Your task to perform on an android device: Search for "macbook pro 13 inch" on costco.com, select the first entry, and add it to the cart. Image 0: 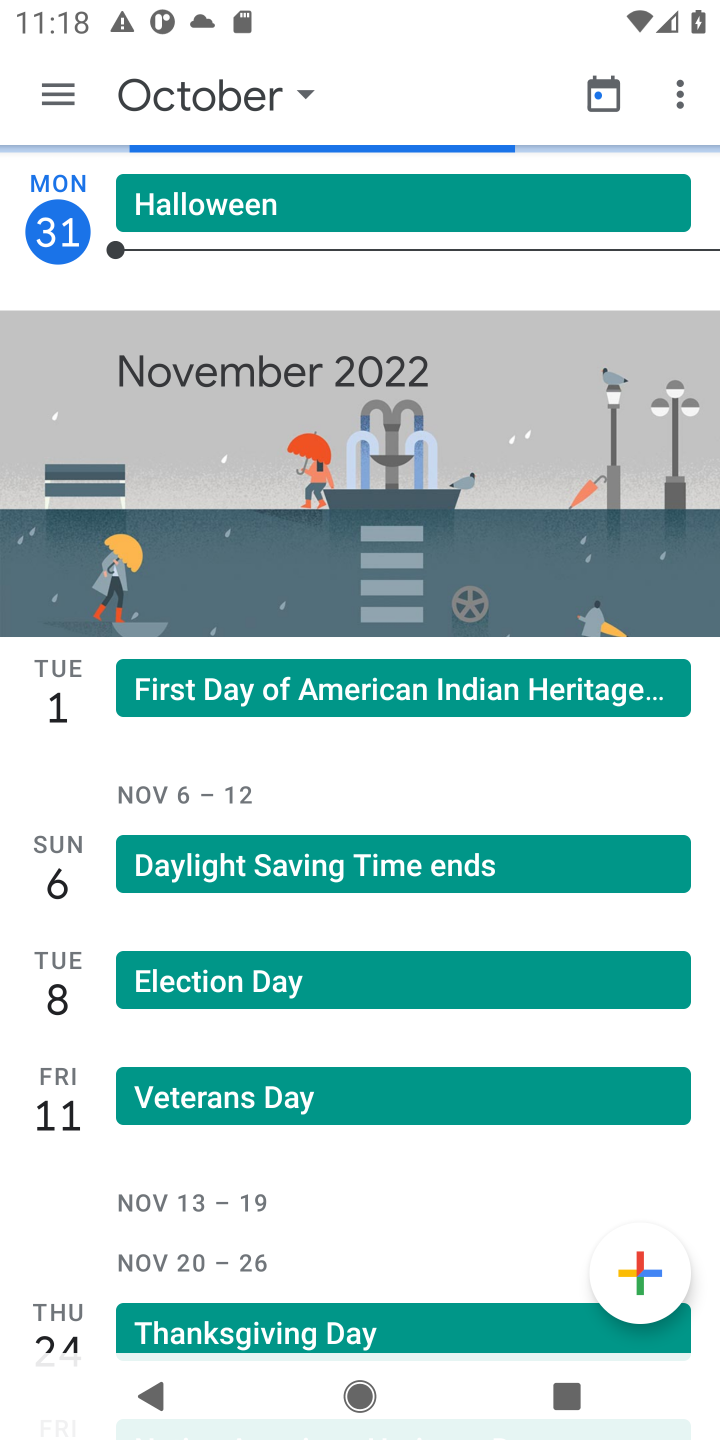
Step 0: press home button
Your task to perform on an android device: Search for "macbook pro 13 inch" on costco.com, select the first entry, and add it to the cart. Image 1: 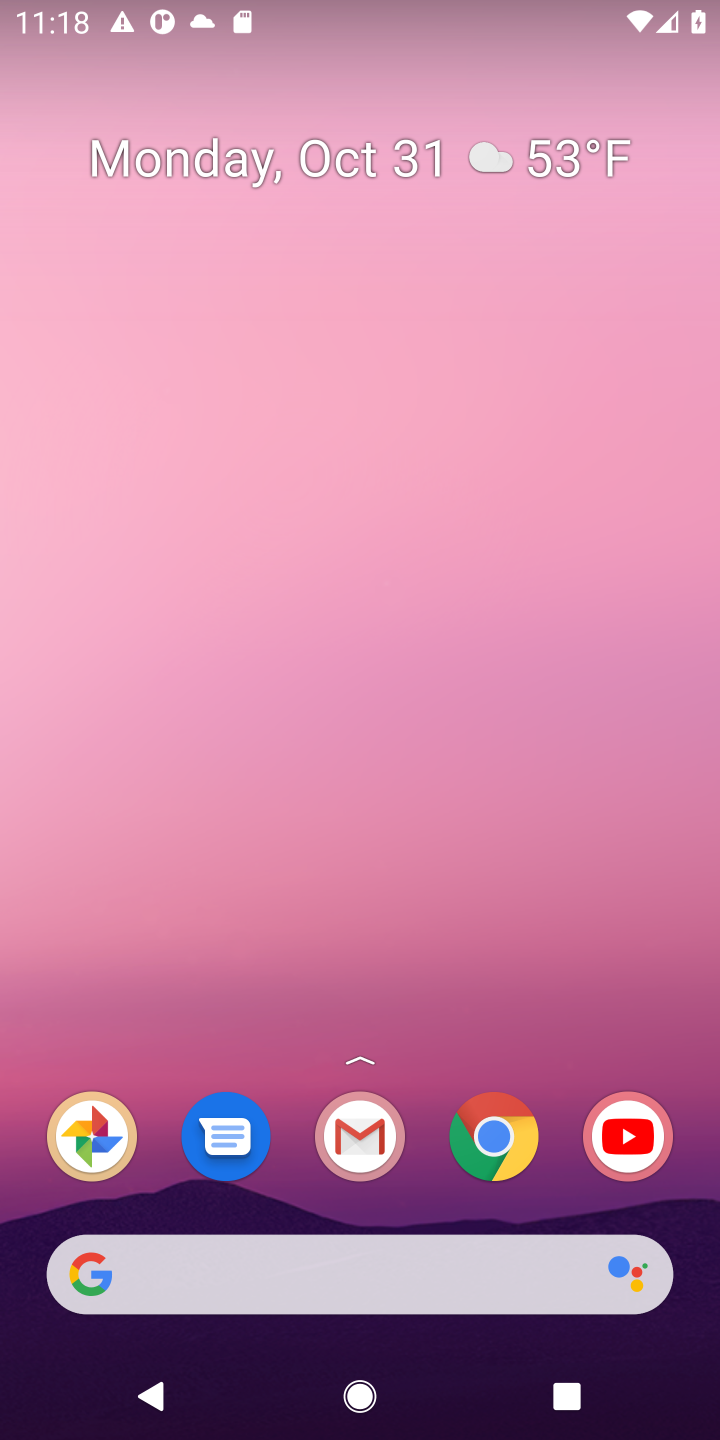
Step 1: click (140, 1271)
Your task to perform on an android device: Search for "macbook pro 13 inch" on costco.com, select the first entry, and add it to the cart. Image 2: 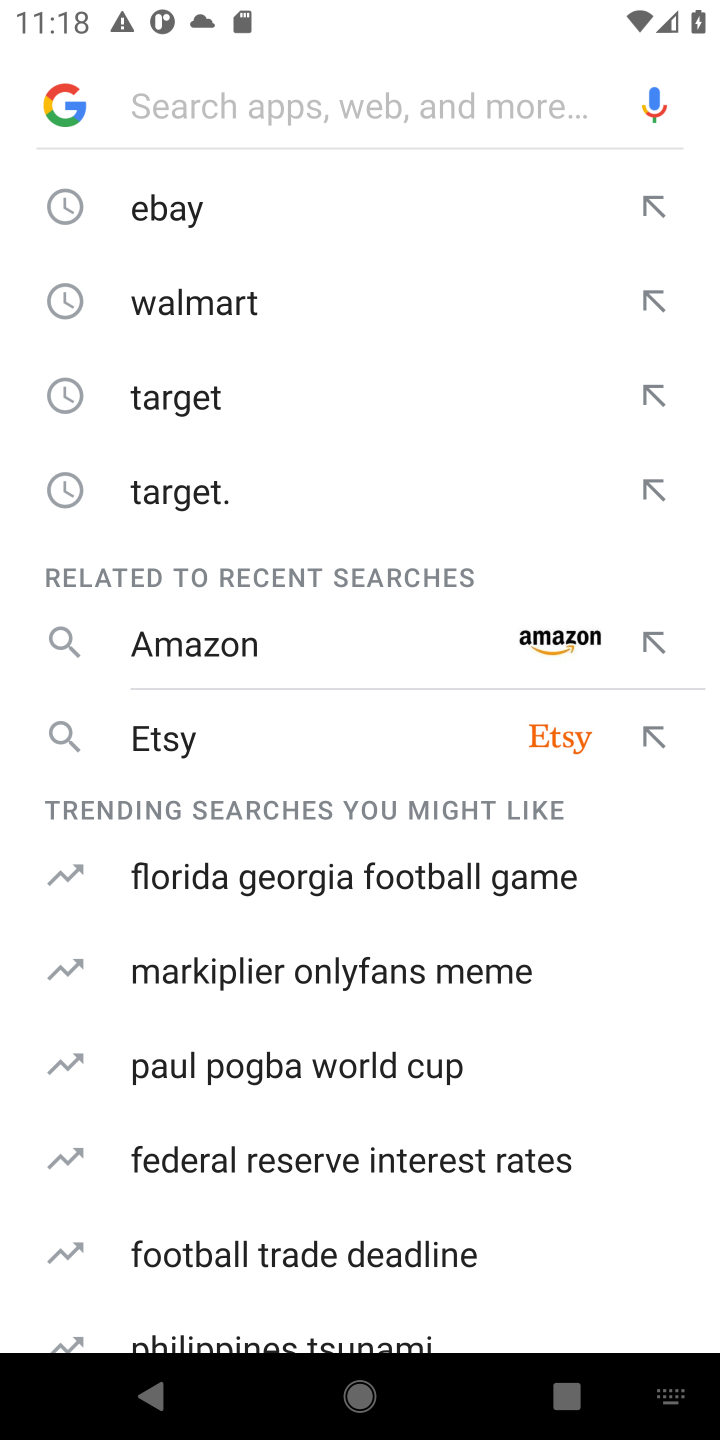
Step 2: click (694, 1427)
Your task to perform on an android device: Search for "macbook pro 13 inch" on costco.com, select the first entry, and add it to the cart. Image 3: 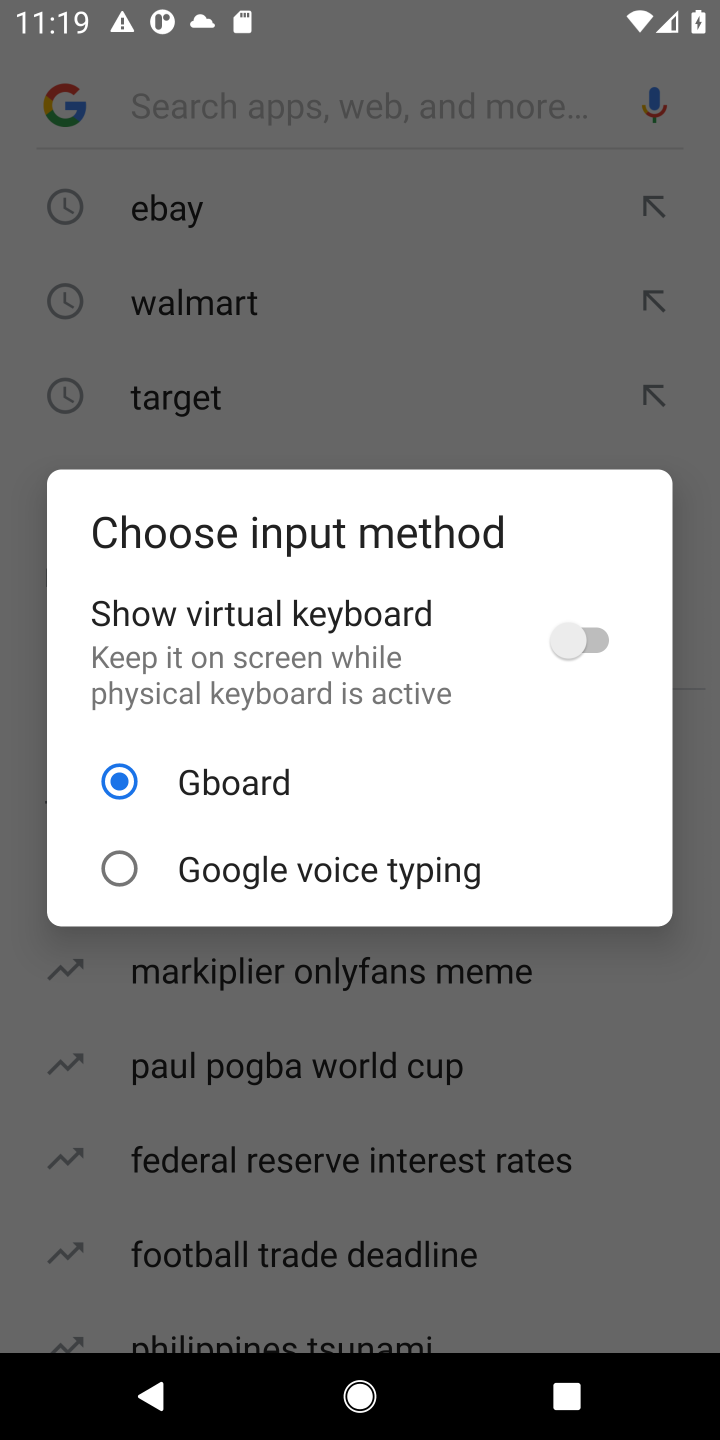
Step 3: press back button
Your task to perform on an android device: Search for "macbook pro 13 inch" on costco.com, select the first entry, and add it to the cart. Image 4: 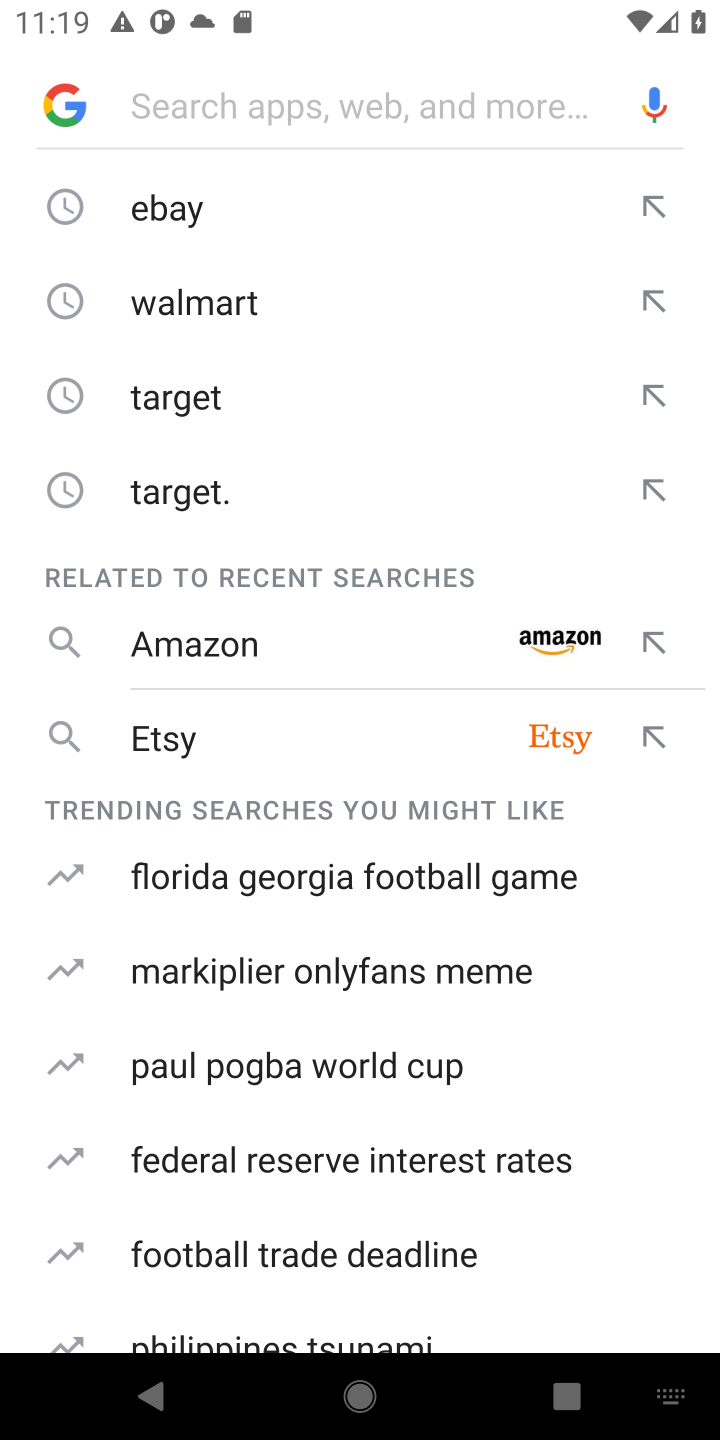
Step 4: click (307, 110)
Your task to perform on an android device: Search for "macbook pro 13 inch" on costco.com, select the first entry, and add it to the cart. Image 5: 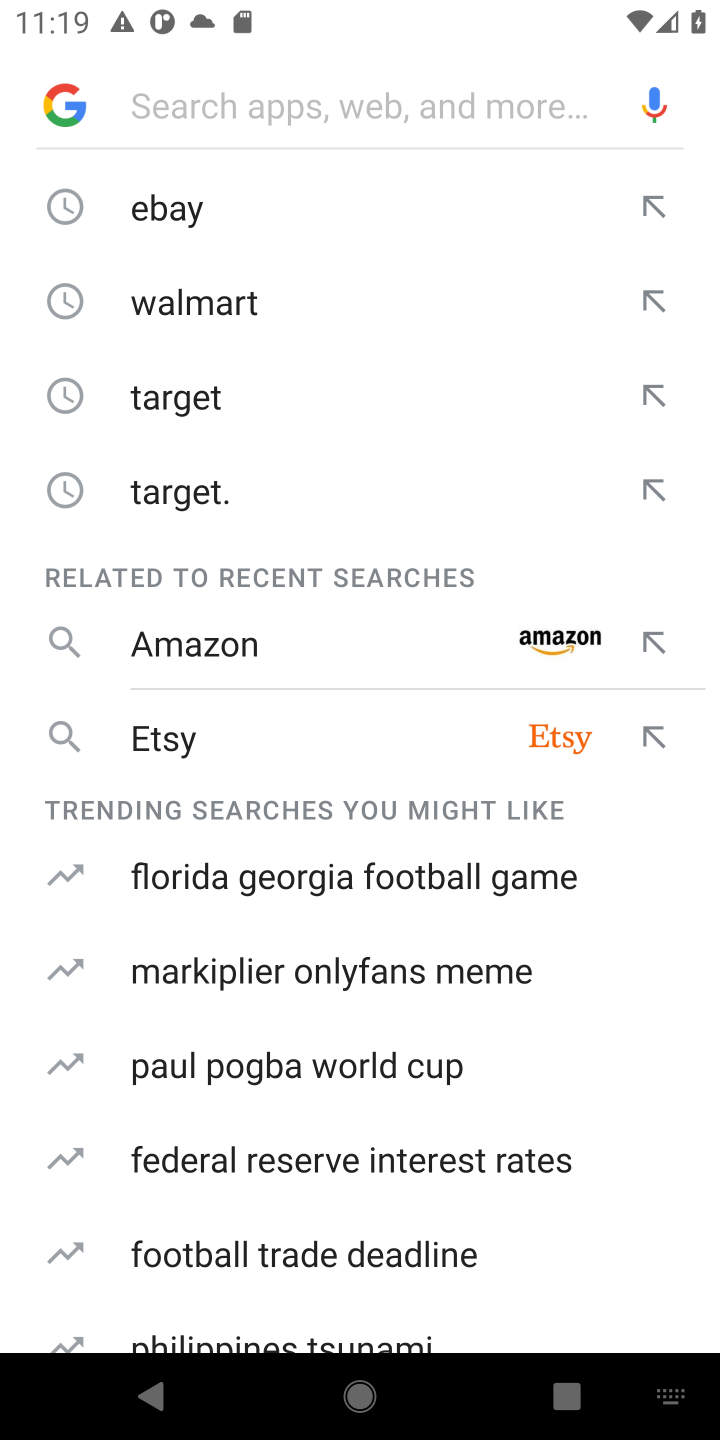
Step 5: type "costco.com"
Your task to perform on an android device: Search for "macbook pro 13 inch" on costco.com, select the first entry, and add it to the cart. Image 6: 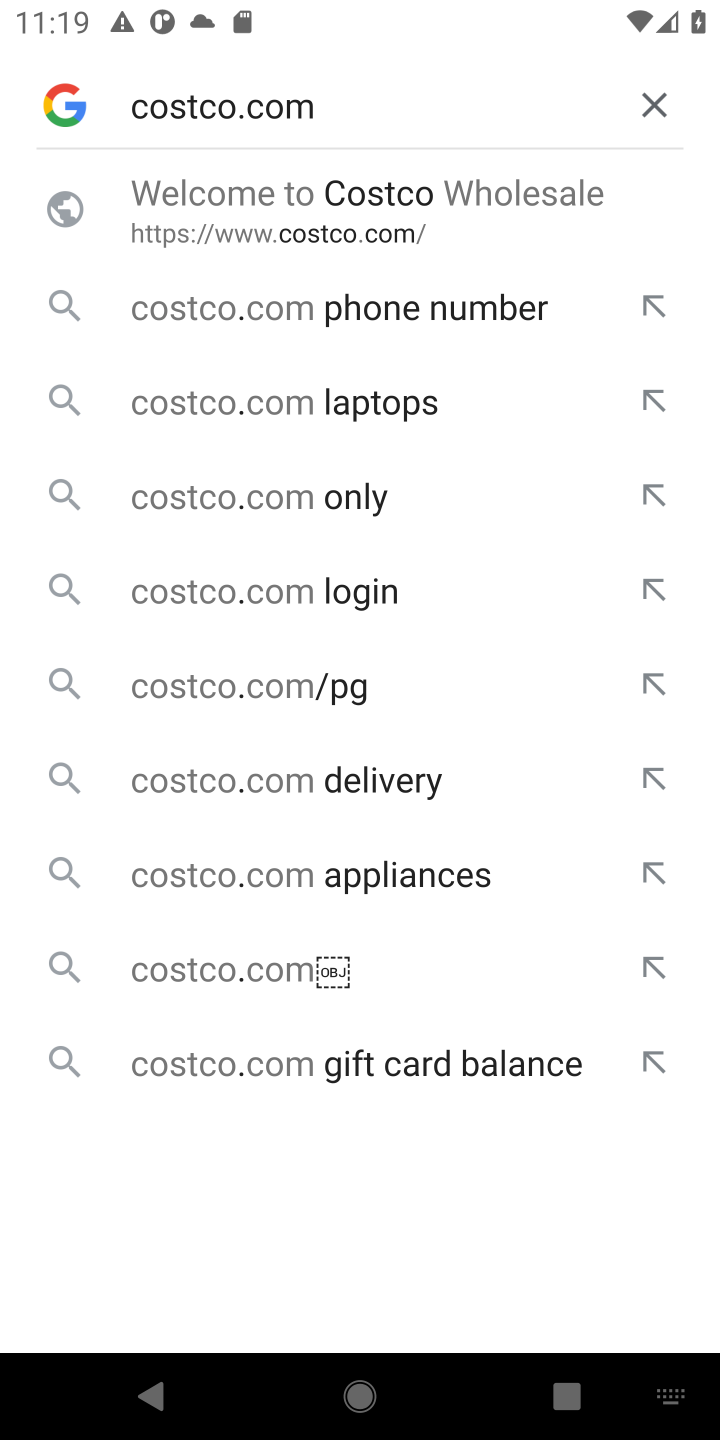
Step 6: press enter
Your task to perform on an android device: Search for "macbook pro 13 inch" on costco.com, select the first entry, and add it to the cart. Image 7: 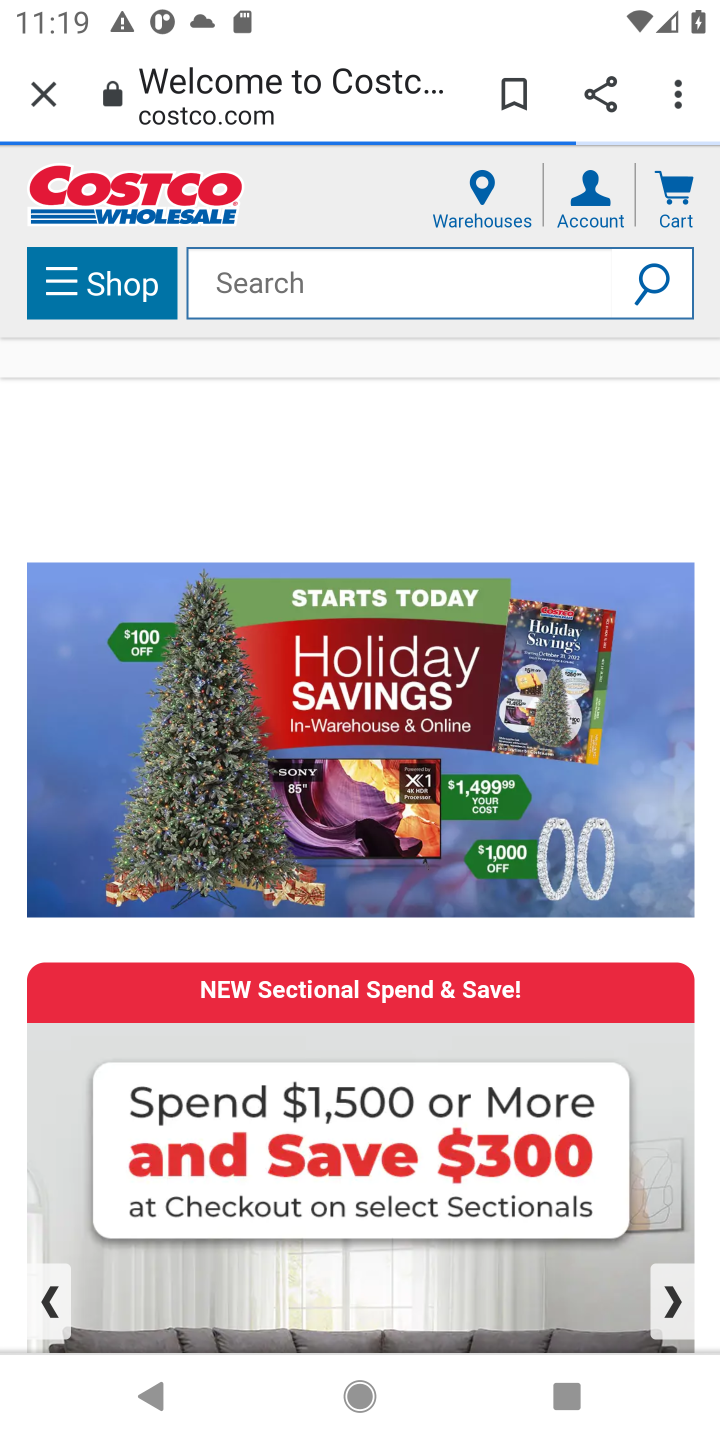
Step 7: click (261, 277)
Your task to perform on an android device: Search for "macbook pro 13 inch" on costco.com, select the first entry, and add it to the cart. Image 8: 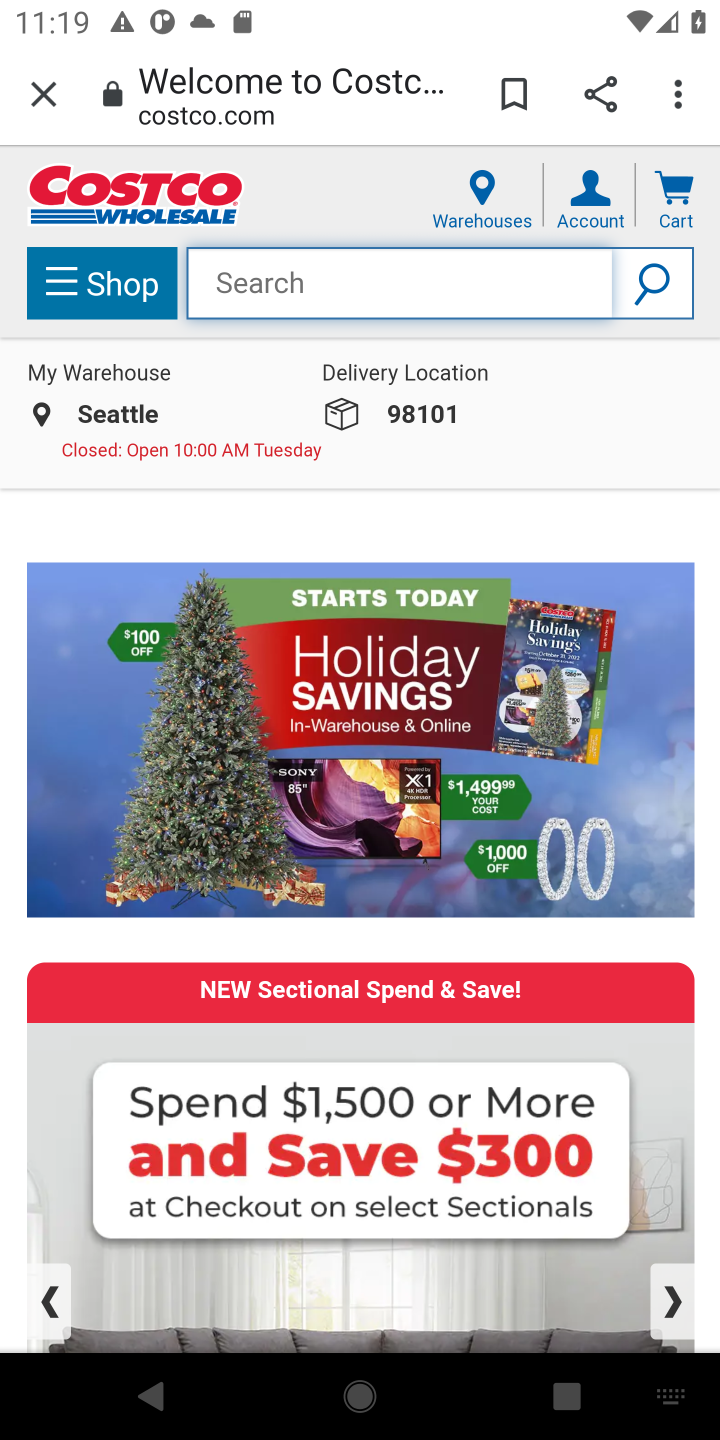
Step 8: type "macbook pro 13 inch"
Your task to perform on an android device: Search for "macbook pro 13 inch" on costco.com, select the first entry, and add it to the cart. Image 9: 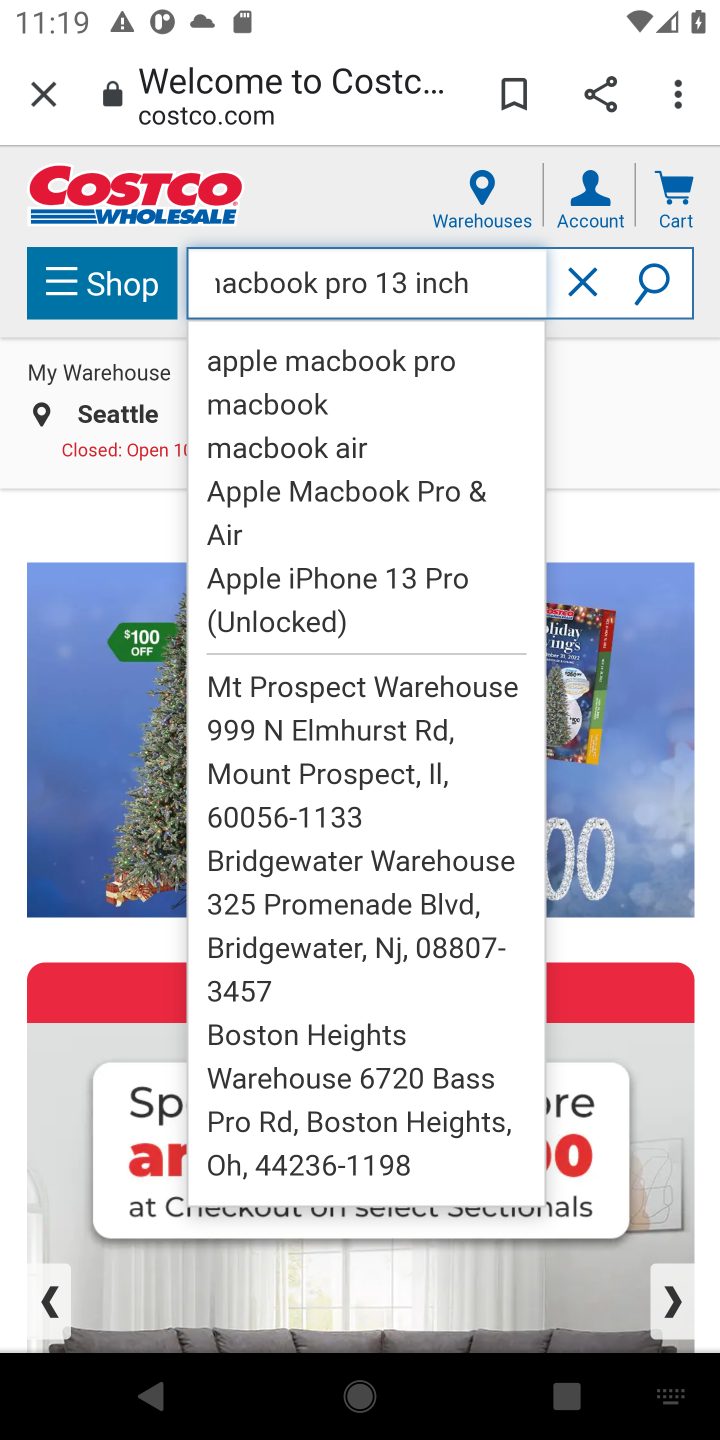
Step 9: click (662, 279)
Your task to perform on an android device: Search for "macbook pro 13 inch" on costco.com, select the first entry, and add it to the cart. Image 10: 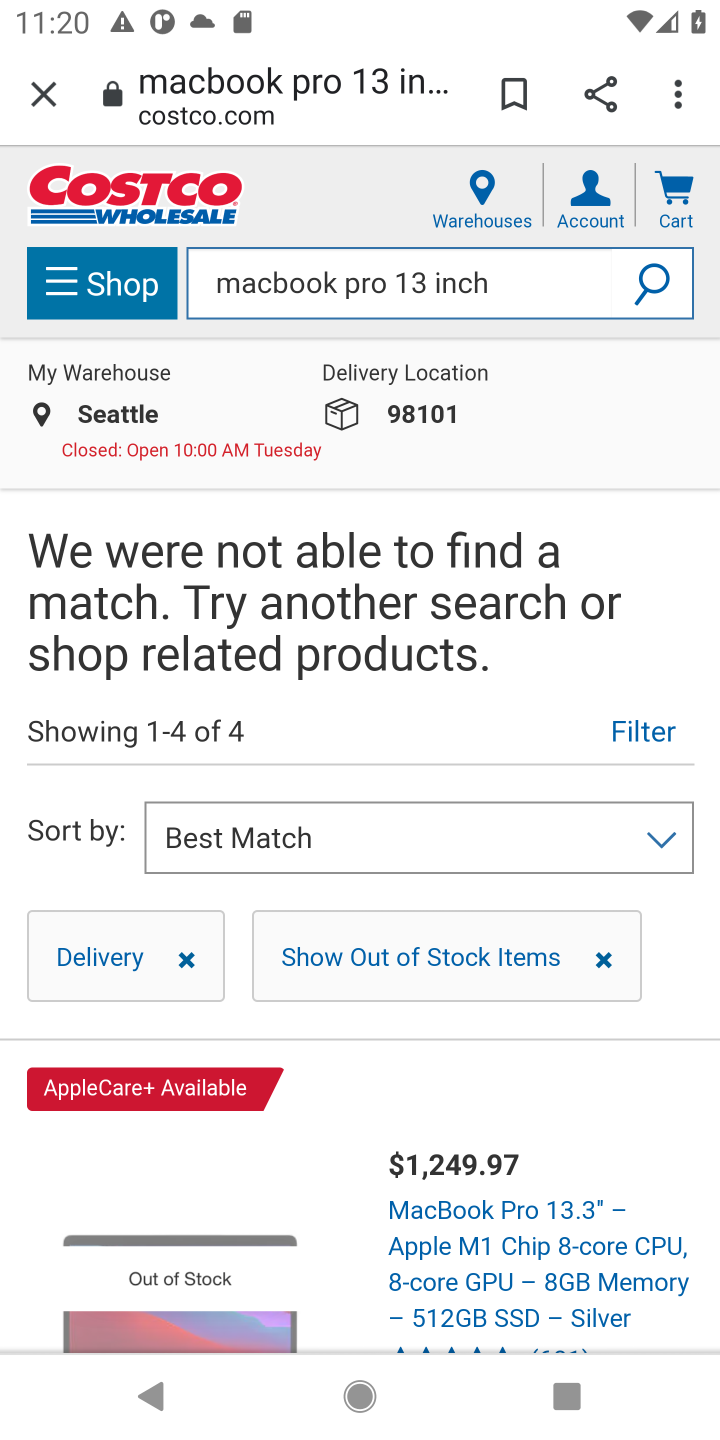
Step 10: drag from (477, 1194) to (544, 816)
Your task to perform on an android device: Search for "macbook pro 13 inch" on costco.com, select the first entry, and add it to the cart. Image 11: 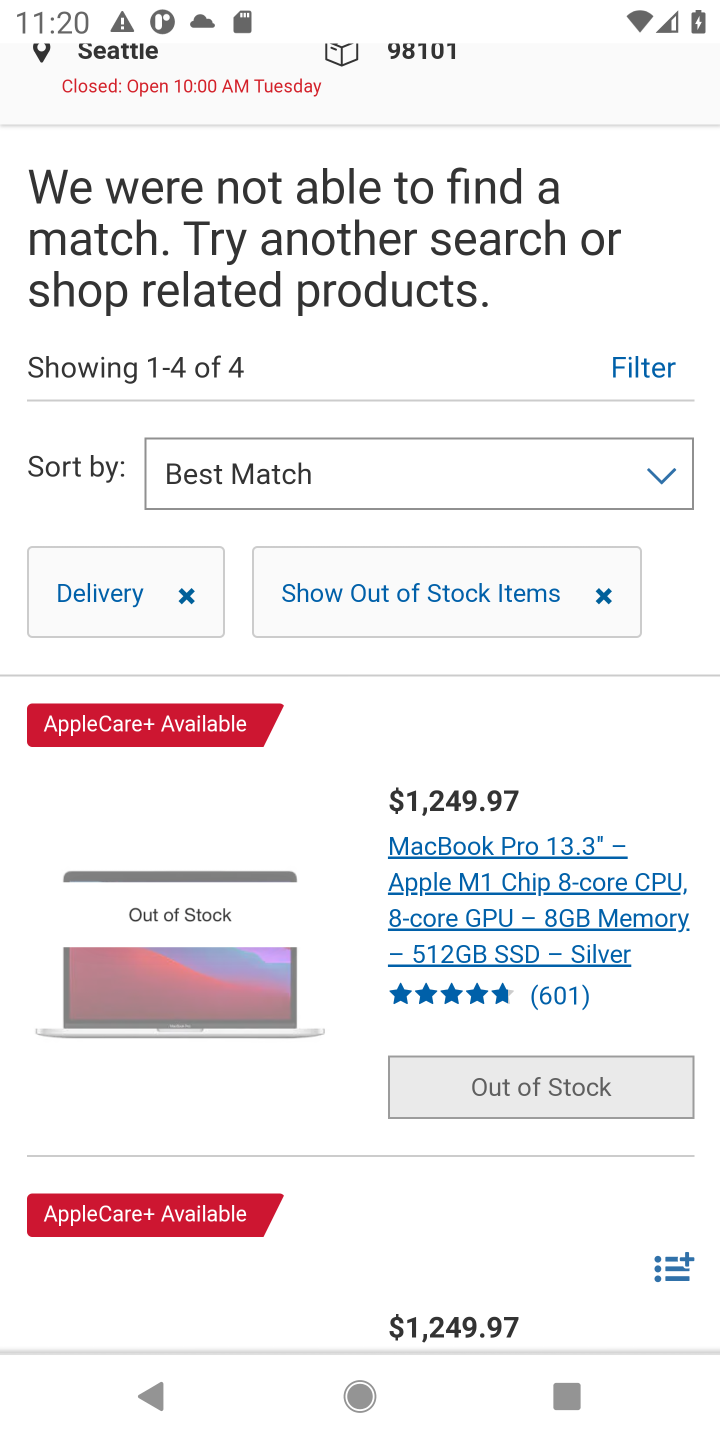
Step 11: drag from (369, 1192) to (419, 696)
Your task to perform on an android device: Search for "macbook pro 13 inch" on costco.com, select the first entry, and add it to the cart. Image 12: 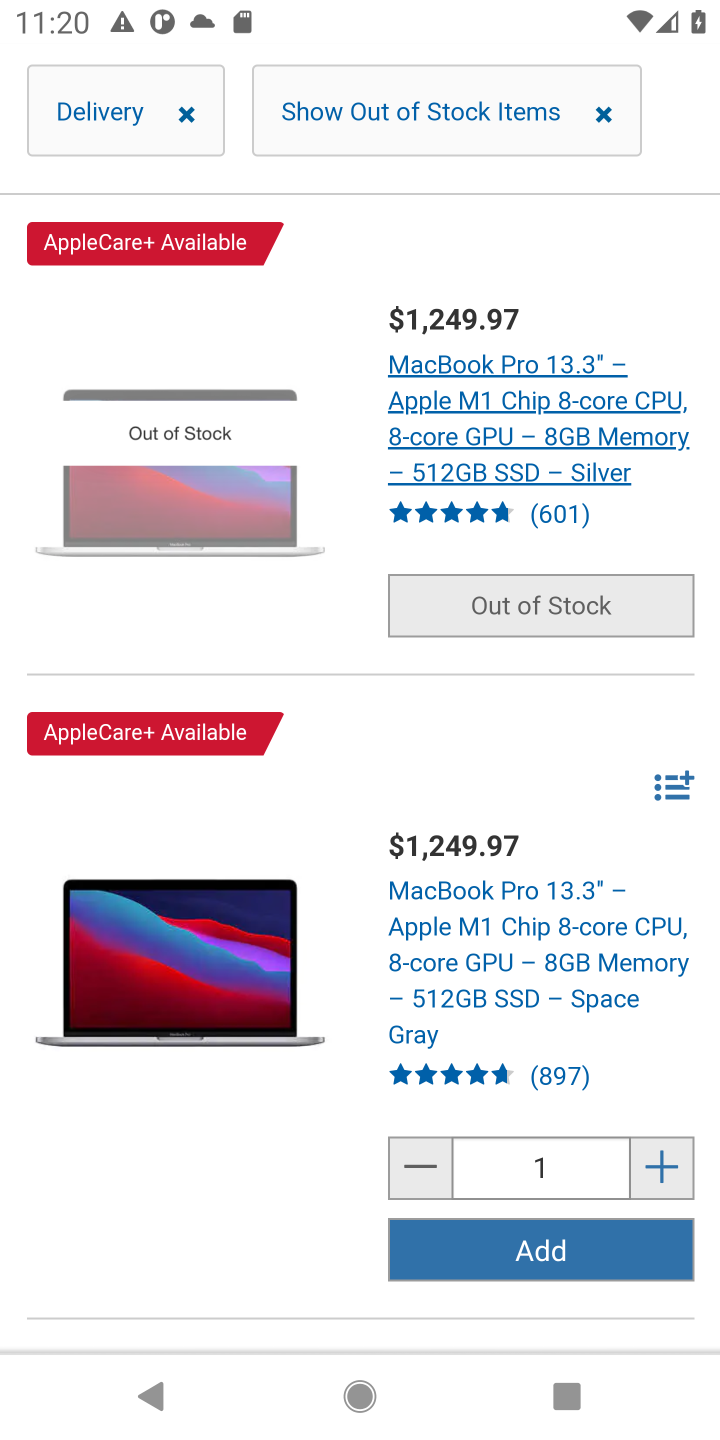
Step 12: click (575, 1259)
Your task to perform on an android device: Search for "macbook pro 13 inch" on costco.com, select the first entry, and add it to the cart. Image 13: 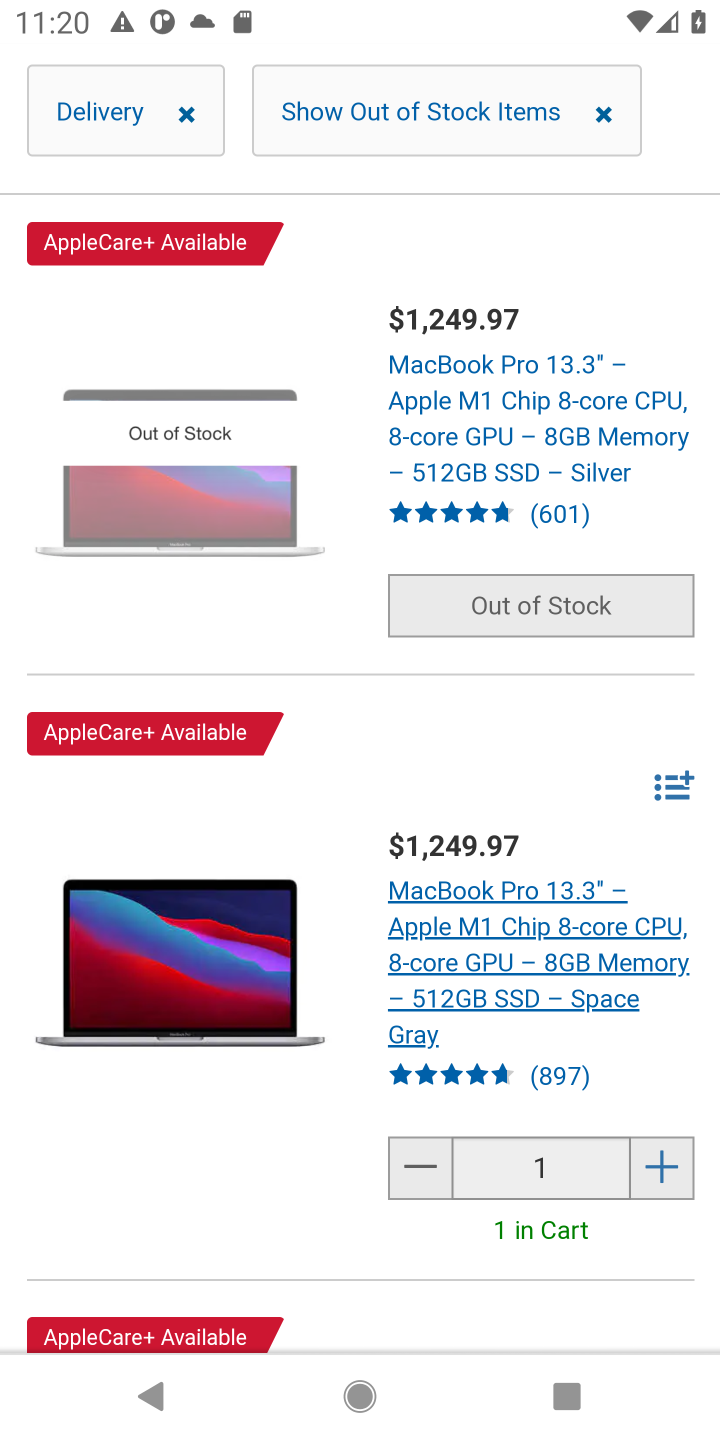
Step 13: task complete